Your task to perform on an android device: see sites visited before in the chrome app Image 0: 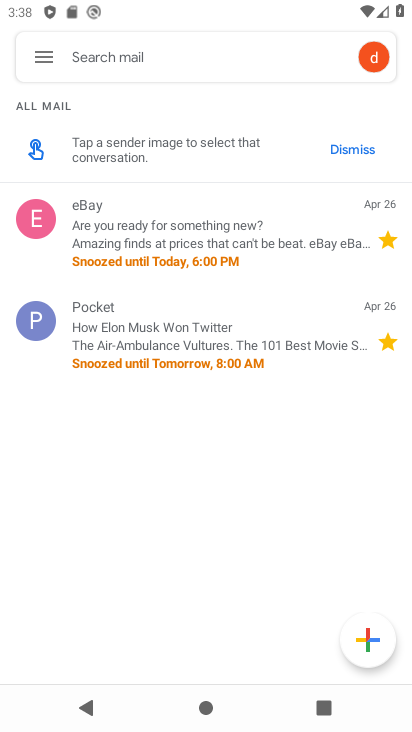
Step 0: press home button
Your task to perform on an android device: see sites visited before in the chrome app Image 1: 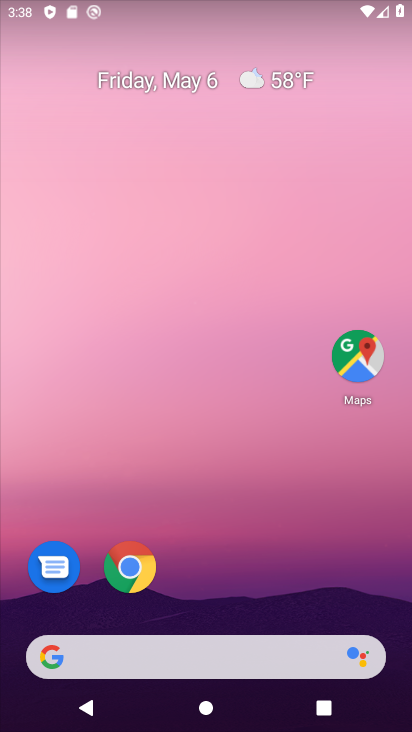
Step 1: click (140, 585)
Your task to perform on an android device: see sites visited before in the chrome app Image 2: 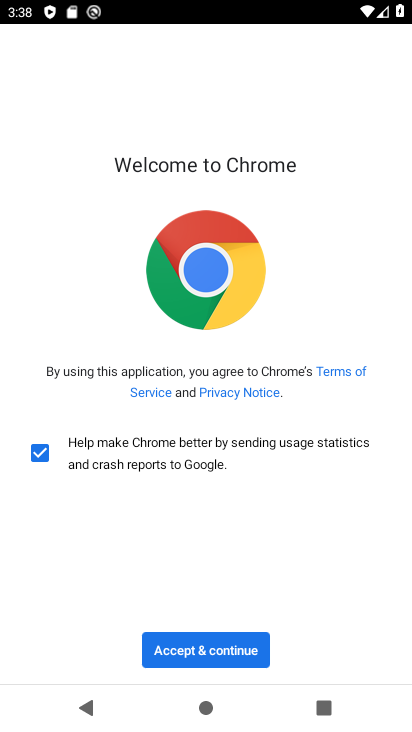
Step 2: click (210, 641)
Your task to perform on an android device: see sites visited before in the chrome app Image 3: 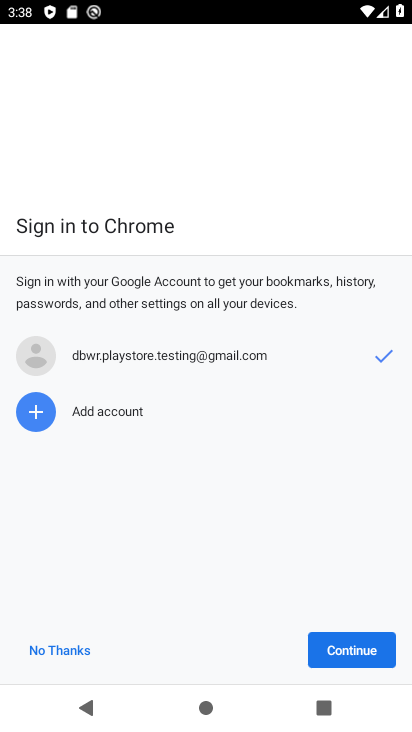
Step 3: click (331, 646)
Your task to perform on an android device: see sites visited before in the chrome app Image 4: 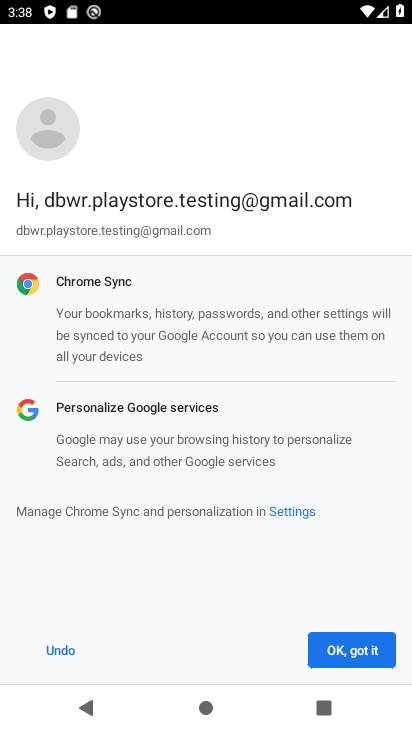
Step 4: click (331, 646)
Your task to perform on an android device: see sites visited before in the chrome app Image 5: 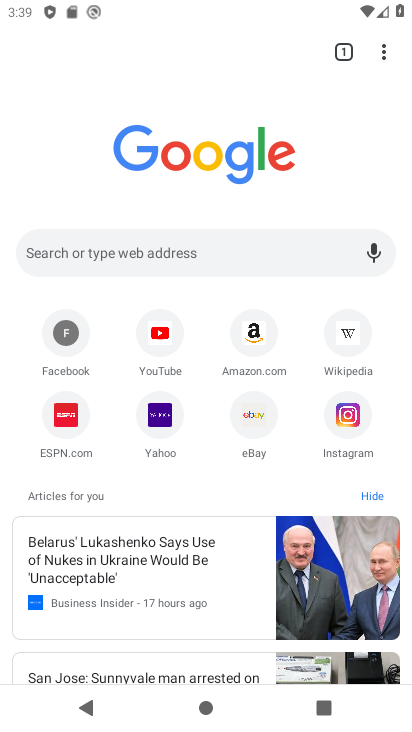
Step 5: task complete